Your task to perform on an android device: allow cookies in the chrome app Image 0: 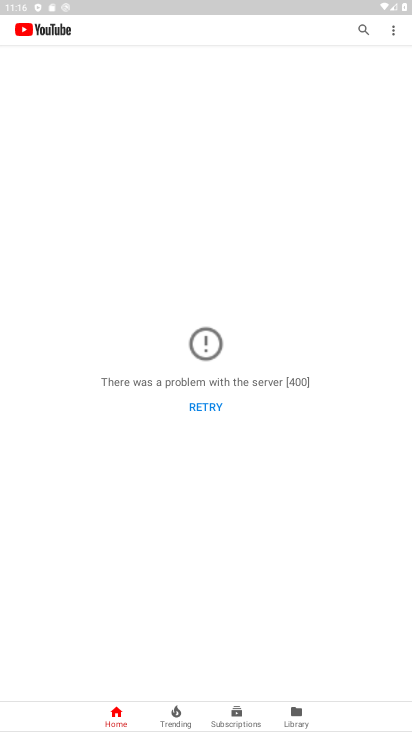
Step 0: task complete